Your task to perform on an android device: open app "Instagram" (install if not already installed) Image 0: 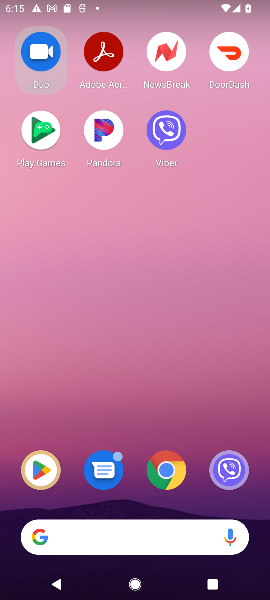
Step 0: drag from (200, 498) to (238, 94)
Your task to perform on an android device: open app "Instagram" (install if not already installed) Image 1: 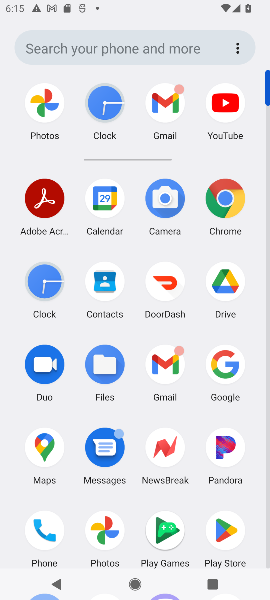
Step 1: drag from (137, 504) to (156, 219)
Your task to perform on an android device: open app "Instagram" (install if not already installed) Image 2: 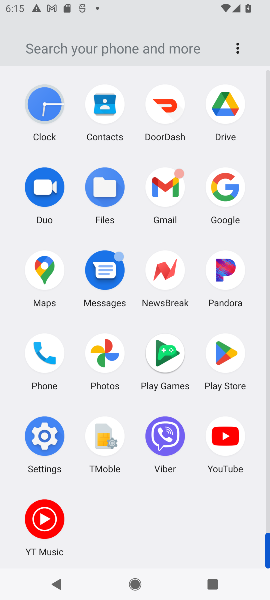
Step 2: click (218, 357)
Your task to perform on an android device: open app "Instagram" (install if not already installed) Image 3: 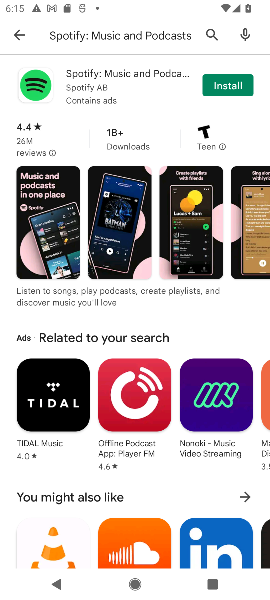
Step 3: click (154, 26)
Your task to perform on an android device: open app "Instagram" (install if not already installed) Image 4: 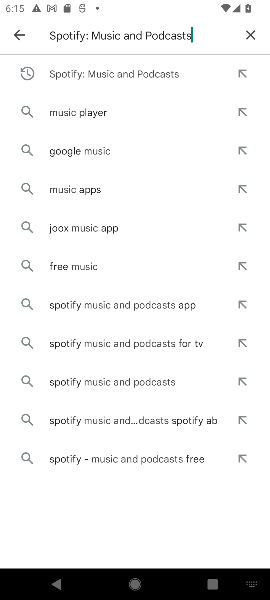
Step 4: click (252, 31)
Your task to perform on an android device: open app "Instagram" (install if not already installed) Image 5: 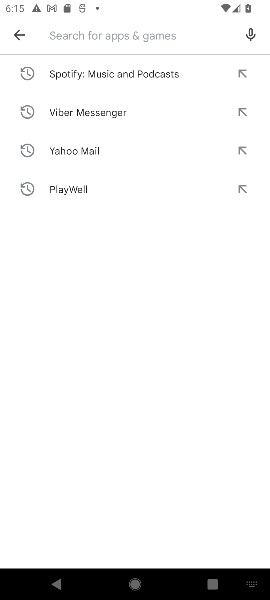
Step 5: type "Instagram"
Your task to perform on an android device: open app "Instagram" (install if not already installed) Image 6: 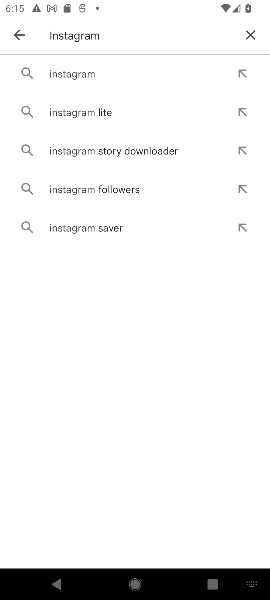
Step 6: press enter
Your task to perform on an android device: open app "Instagram" (install if not already installed) Image 7: 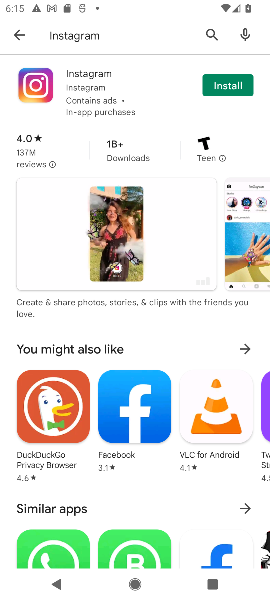
Step 7: click (232, 91)
Your task to perform on an android device: open app "Instagram" (install if not already installed) Image 8: 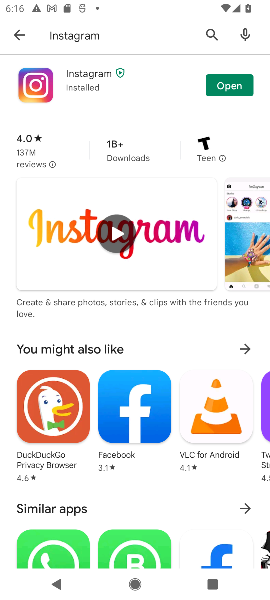
Step 8: click (233, 89)
Your task to perform on an android device: open app "Instagram" (install if not already installed) Image 9: 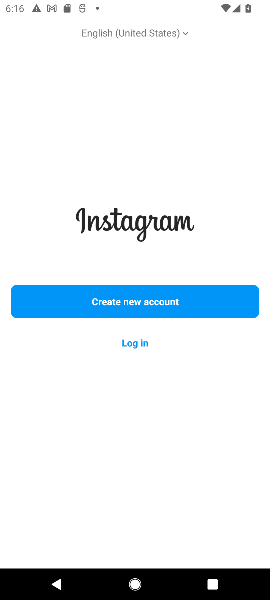
Step 9: task complete